Your task to perform on an android device: clear history in the chrome app Image 0: 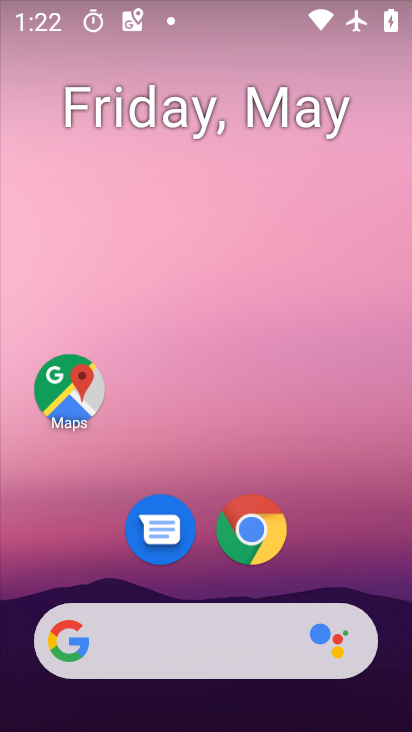
Step 0: drag from (246, 635) to (171, 99)
Your task to perform on an android device: clear history in the chrome app Image 1: 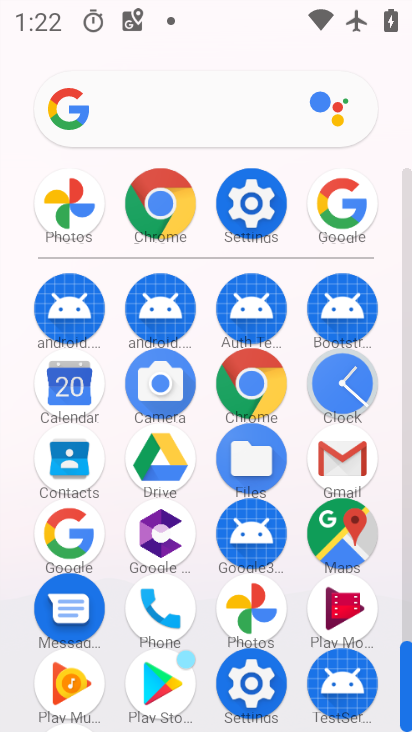
Step 1: click (174, 213)
Your task to perform on an android device: clear history in the chrome app Image 2: 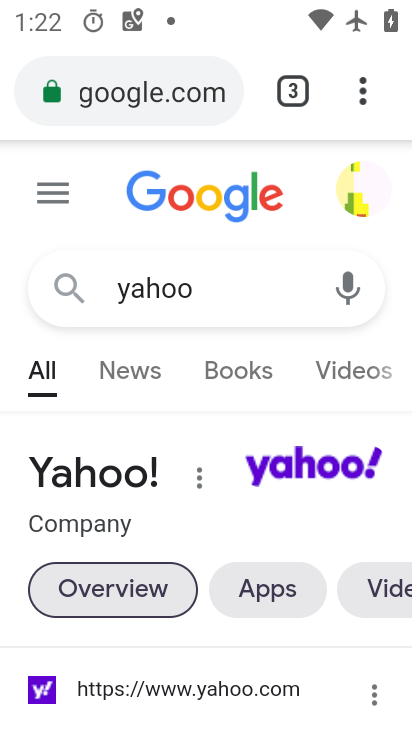
Step 2: click (364, 103)
Your task to perform on an android device: clear history in the chrome app Image 3: 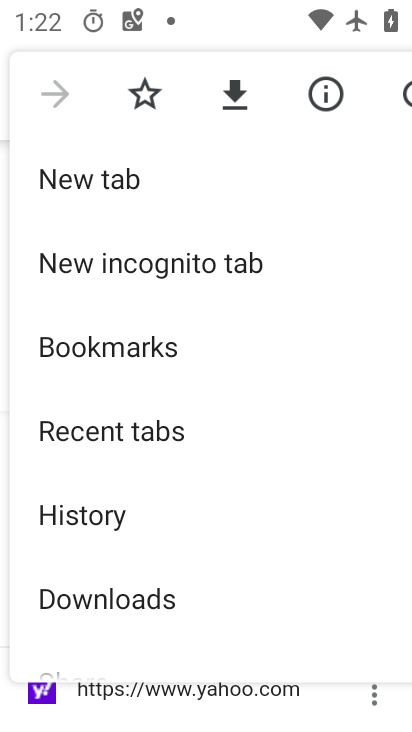
Step 3: drag from (155, 438) to (136, 367)
Your task to perform on an android device: clear history in the chrome app Image 4: 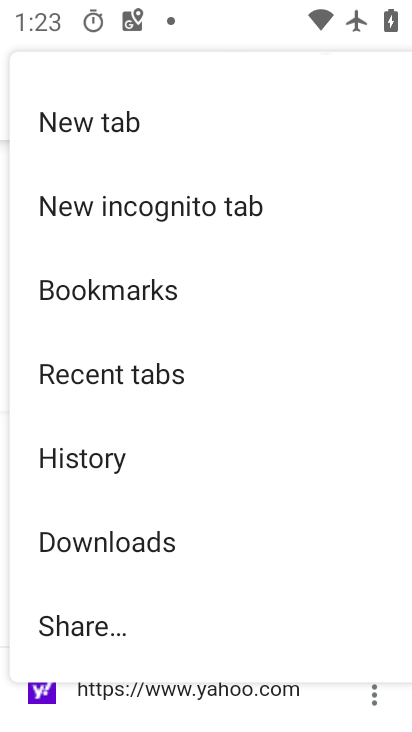
Step 4: click (110, 469)
Your task to perform on an android device: clear history in the chrome app Image 5: 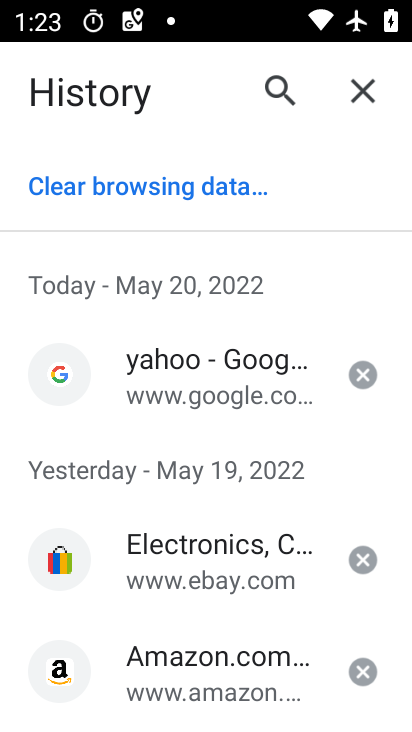
Step 5: click (129, 181)
Your task to perform on an android device: clear history in the chrome app Image 6: 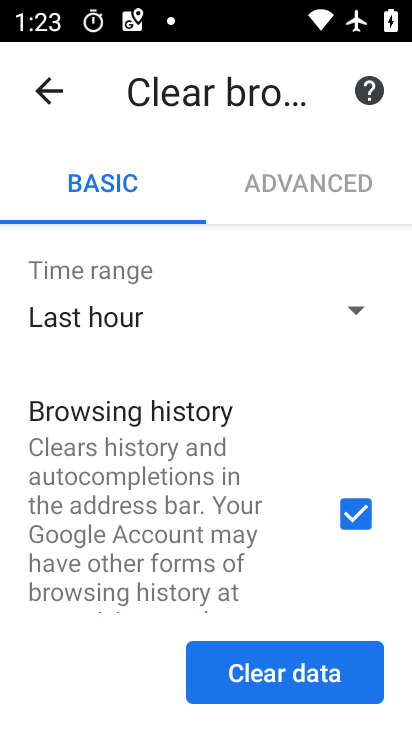
Step 6: click (127, 183)
Your task to perform on an android device: clear history in the chrome app Image 7: 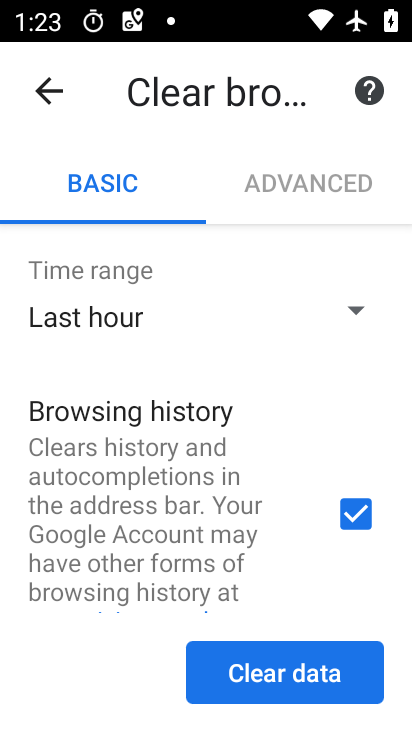
Step 7: click (292, 687)
Your task to perform on an android device: clear history in the chrome app Image 8: 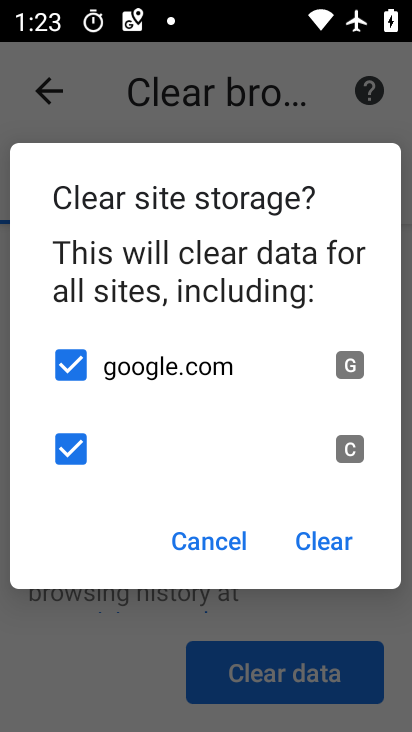
Step 8: click (322, 545)
Your task to perform on an android device: clear history in the chrome app Image 9: 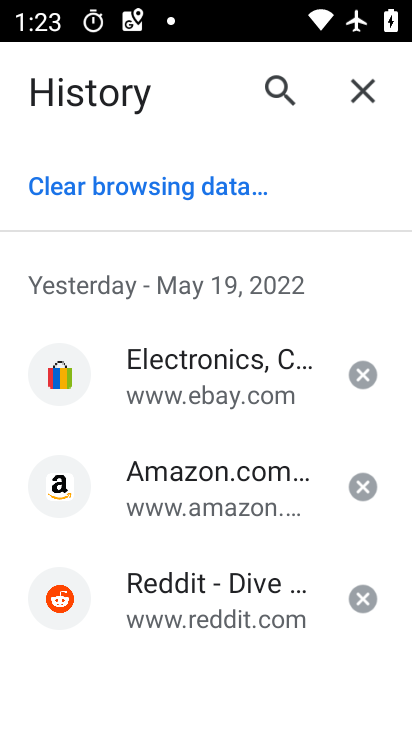
Step 9: click (204, 203)
Your task to perform on an android device: clear history in the chrome app Image 10: 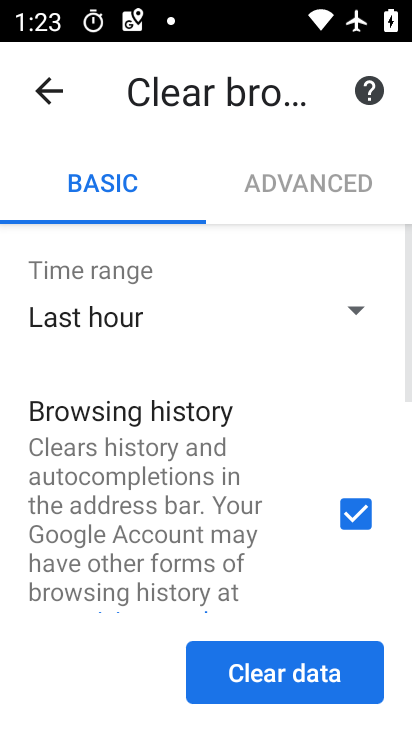
Step 10: click (316, 672)
Your task to perform on an android device: clear history in the chrome app Image 11: 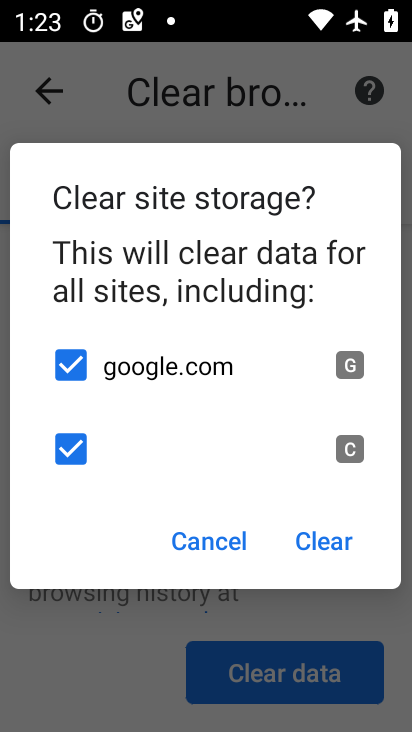
Step 11: click (320, 541)
Your task to perform on an android device: clear history in the chrome app Image 12: 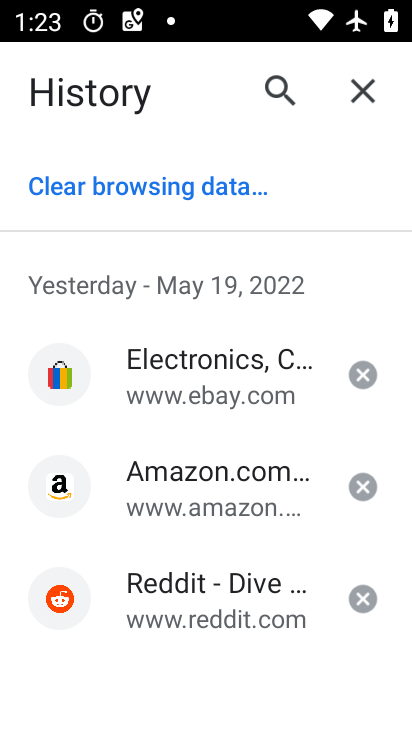
Step 12: task complete